Your task to perform on an android device: open chrome privacy settings Image 0: 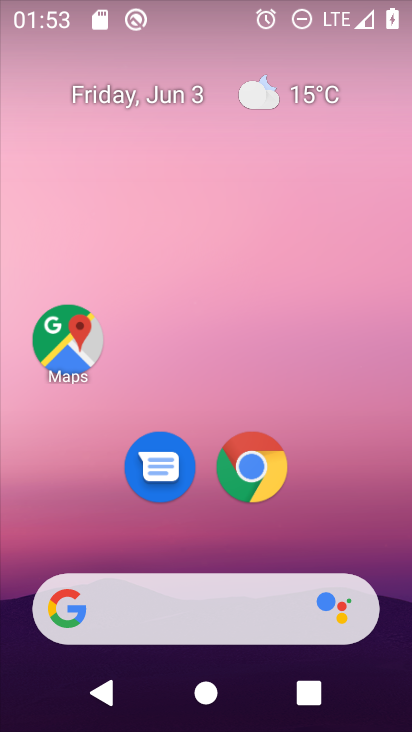
Step 0: click (250, 469)
Your task to perform on an android device: open chrome privacy settings Image 1: 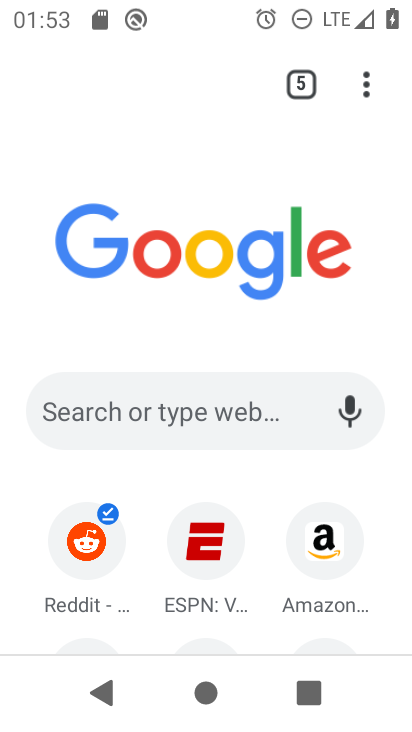
Step 1: click (360, 94)
Your task to perform on an android device: open chrome privacy settings Image 2: 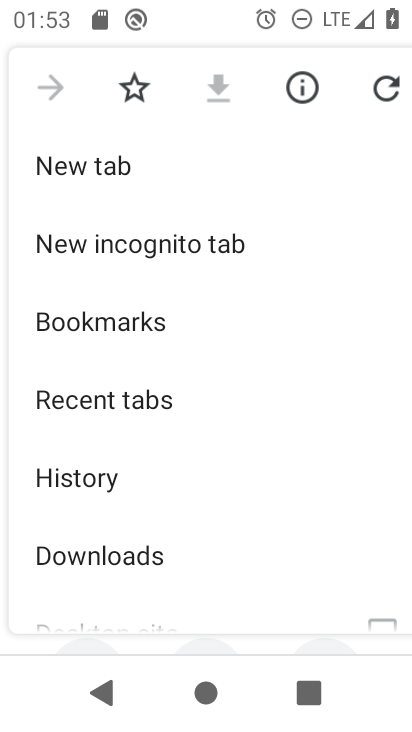
Step 2: drag from (208, 575) to (301, 225)
Your task to perform on an android device: open chrome privacy settings Image 3: 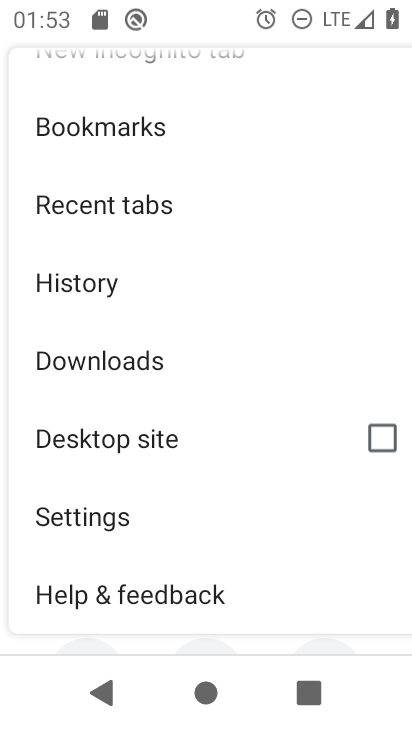
Step 3: click (94, 518)
Your task to perform on an android device: open chrome privacy settings Image 4: 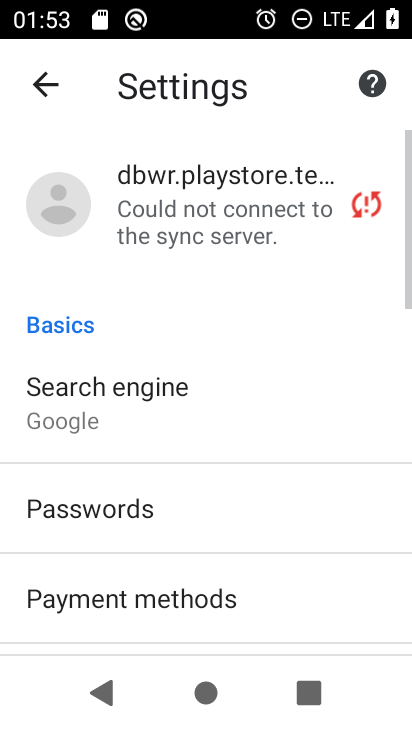
Step 4: drag from (276, 584) to (279, 95)
Your task to perform on an android device: open chrome privacy settings Image 5: 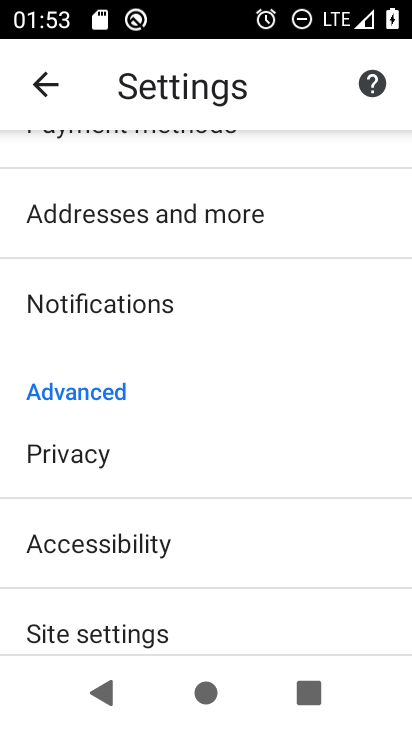
Step 5: click (60, 454)
Your task to perform on an android device: open chrome privacy settings Image 6: 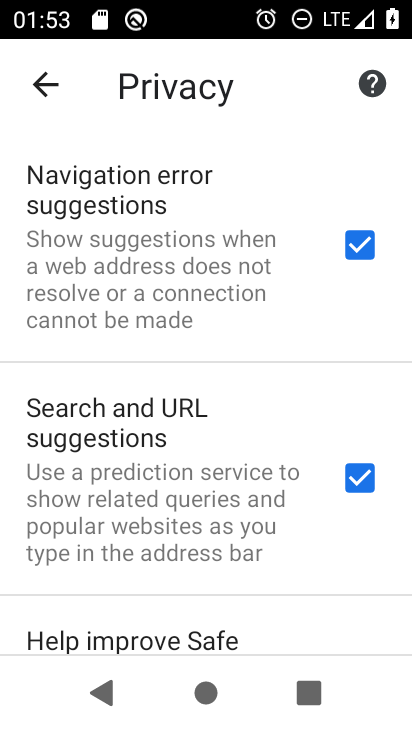
Step 6: task complete